Your task to perform on an android device: turn pop-ups on in chrome Image 0: 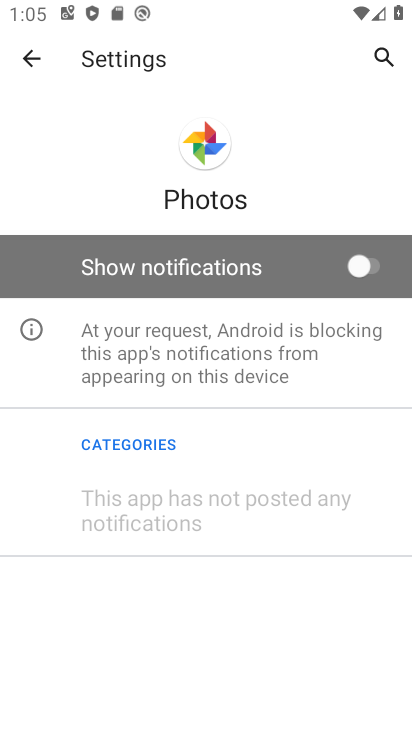
Step 0: press home button
Your task to perform on an android device: turn pop-ups on in chrome Image 1: 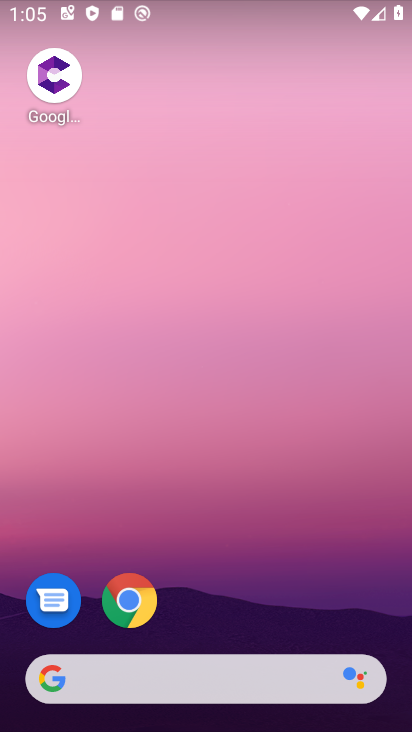
Step 1: click (123, 604)
Your task to perform on an android device: turn pop-ups on in chrome Image 2: 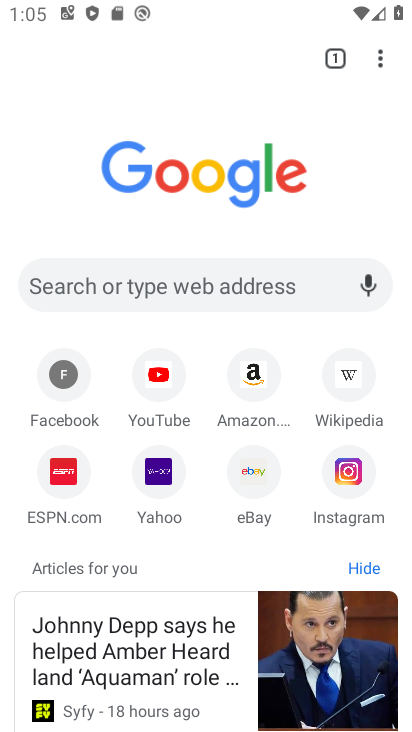
Step 2: click (380, 65)
Your task to perform on an android device: turn pop-ups on in chrome Image 3: 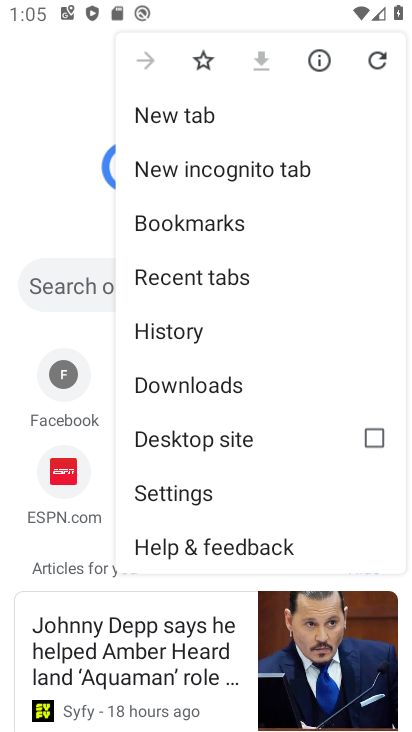
Step 3: click (184, 489)
Your task to perform on an android device: turn pop-ups on in chrome Image 4: 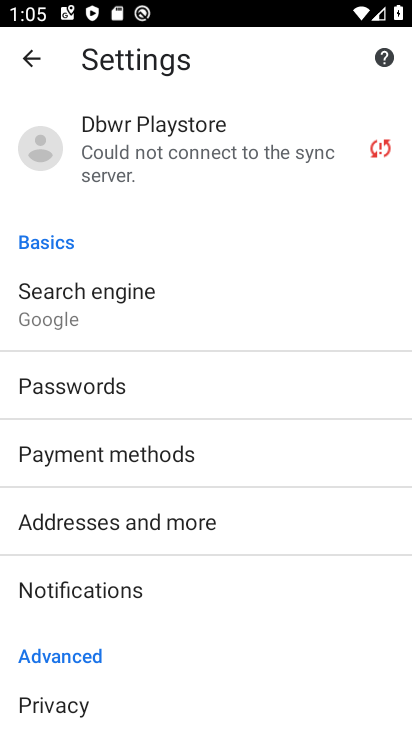
Step 4: drag from (158, 595) to (158, 387)
Your task to perform on an android device: turn pop-ups on in chrome Image 5: 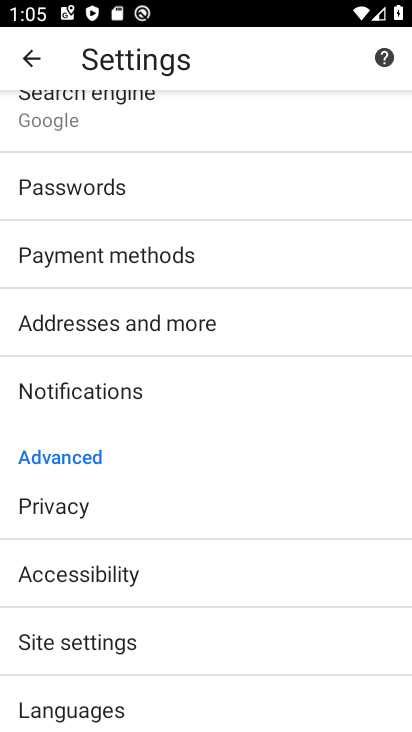
Step 5: click (120, 640)
Your task to perform on an android device: turn pop-ups on in chrome Image 6: 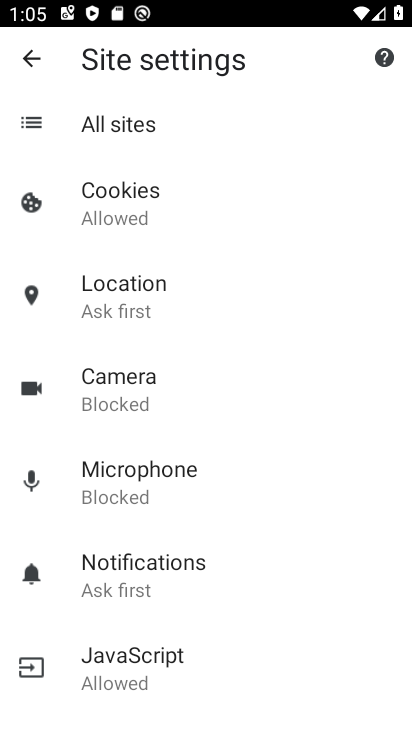
Step 6: drag from (129, 638) to (118, 459)
Your task to perform on an android device: turn pop-ups on in chrome Image 7: 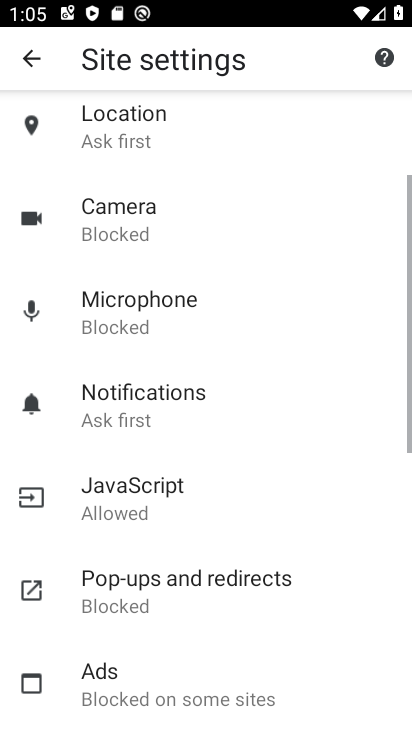
Step 7: drag from (110, 337) to (105, 221)
Your task to perform on an android device: turn pop-ups on in chrome Image 8: 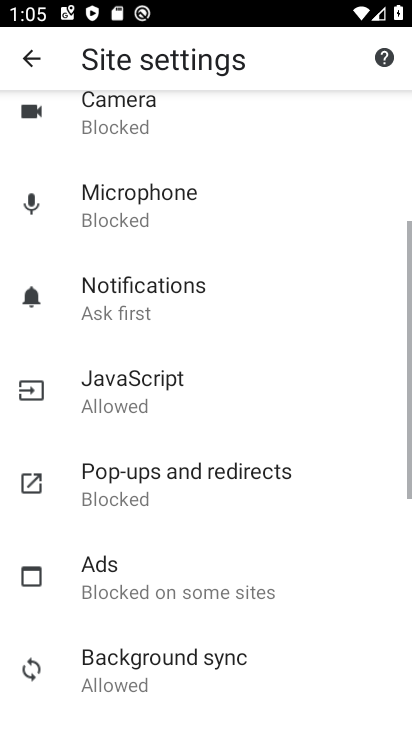
Step 8: click (120, 479)
Your task to perform on an android device: turn pop-ups on in chrome Image 9: 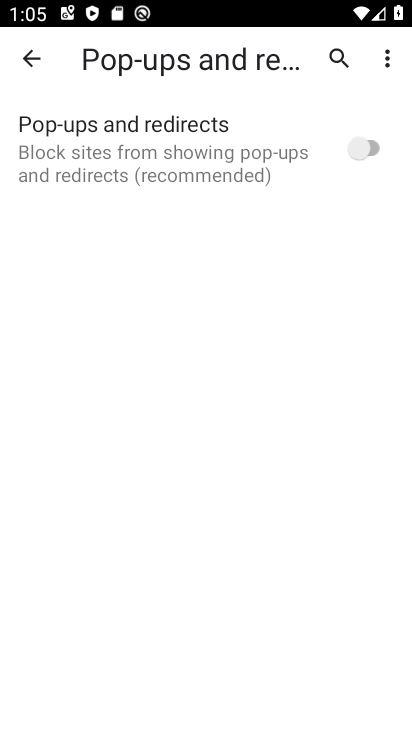
Step 9: click (372, 151)
Your task to perform on an android device: turn pop-ups on in chrome Image 10: 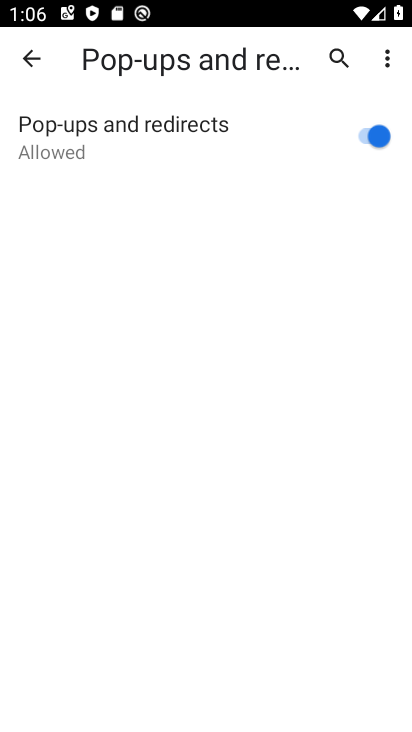
Step 10: task complete